Your task to perform on an android device: turn off wifi Image 0: 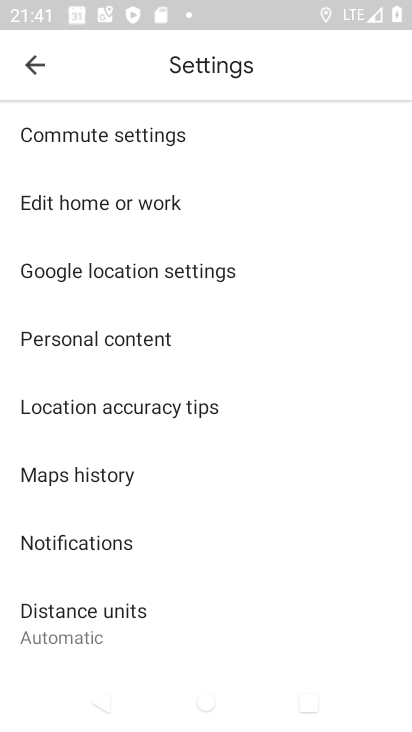
Step 0: drag from (226, 244) to (193, 672)
Your task to perform on an android device: turn off wifi Image 1: 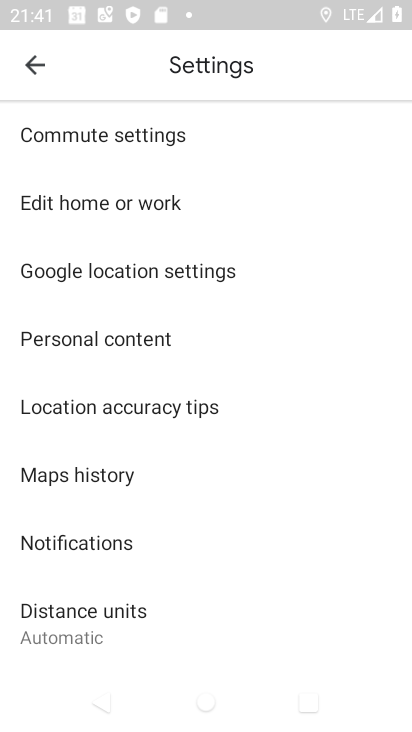
Step 1: press home button
Your task to perform on an android device: turn off wifi Image 2: 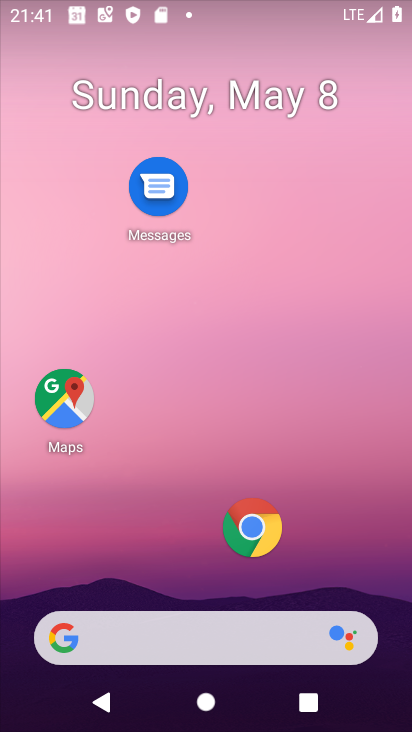
Step 2: drag from (173, 577) to (248, 8)
Your task to perform on an android device: turn off wifi Image 3: 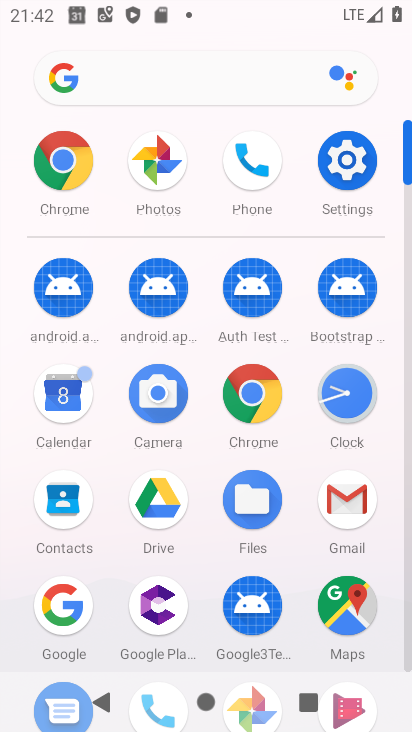
Step 3: click (340, 160)
Your task to perform on an android device: turn off wifi Image 4: 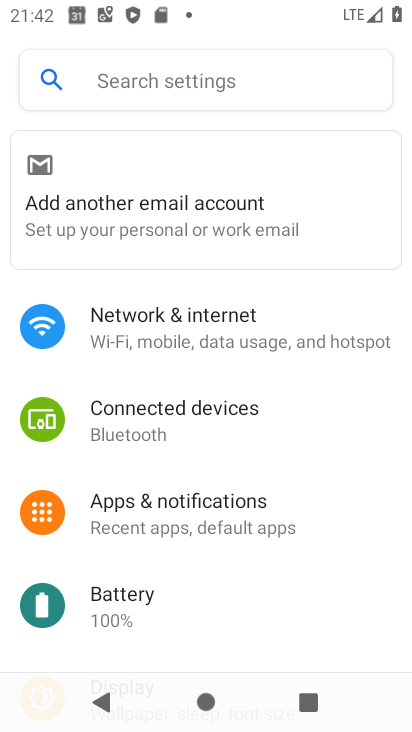
Step 4: click (196, 330)
Your task to perform on an android device: turn off wifi Image 5: 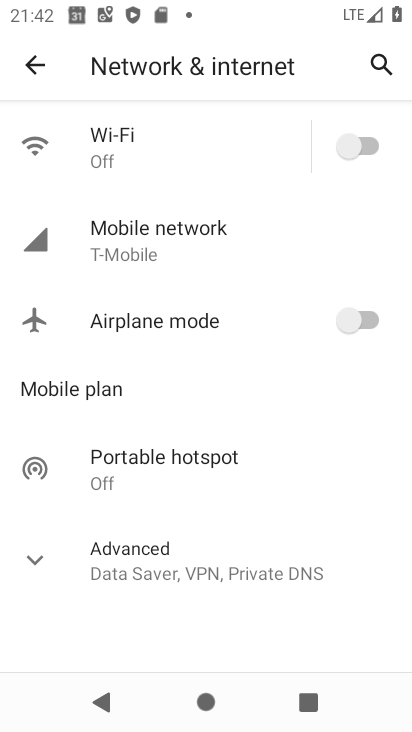
Step 5: task complete